Your task to perform on an android device: open app "Google Docs" (install if not already installed) Image 0: 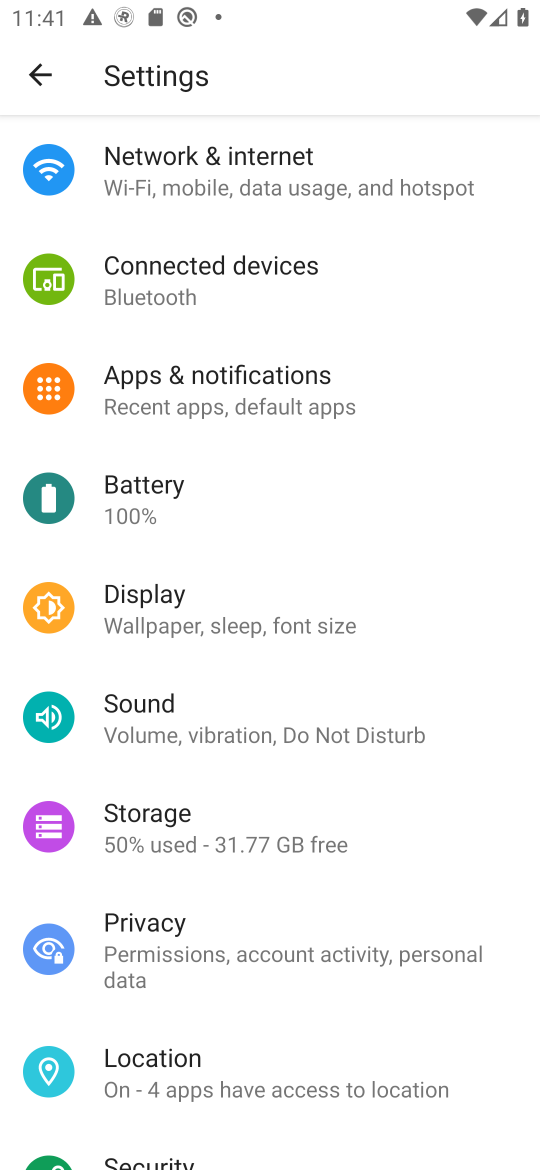
Step 0: press home button
Your task to perform on an android device: open app "Google Docs" (install if not already installed) Image 1: 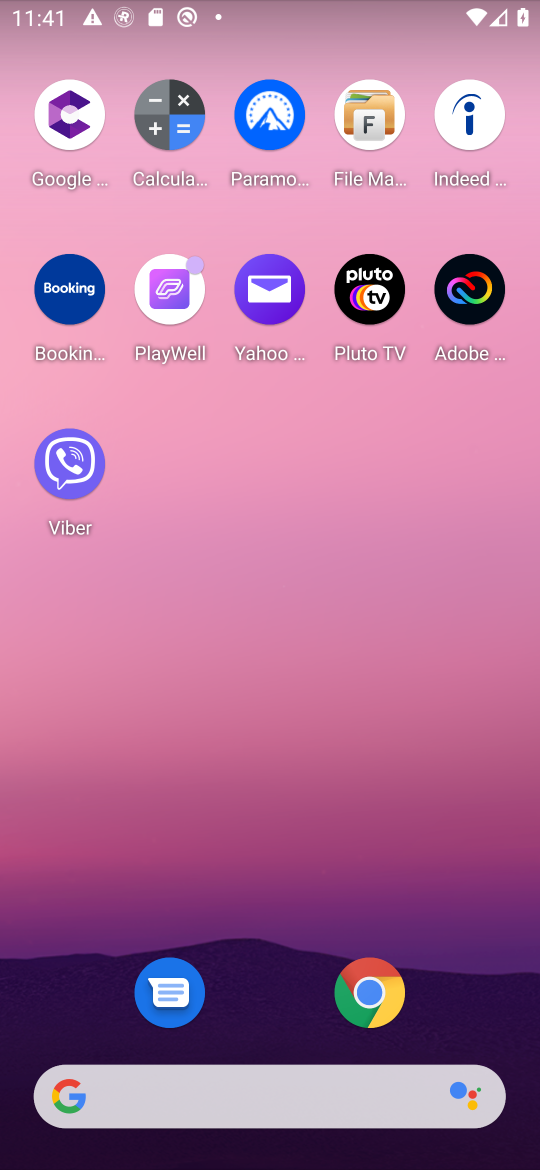
Step 1: drag from (251, 1099) to (232, 399)
Your task to perform on an android device: open app "Google Docs" (install if not already installed) Image 2: 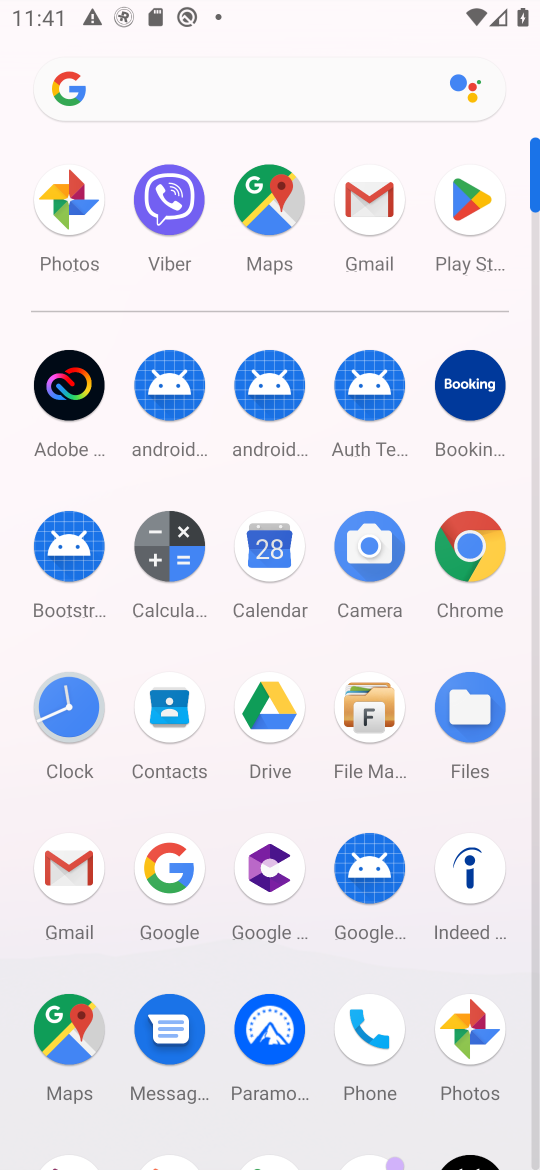
Step 2: click (468, 207)
Your task to perform on an android device: open app "Google Docs" (install if not already installed) Image 3: 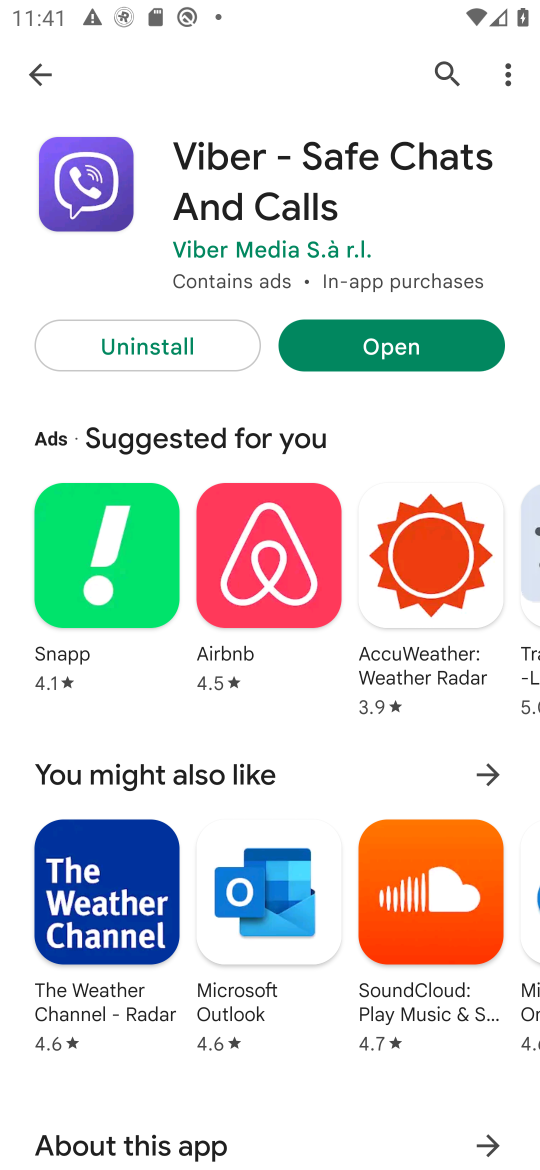
Step 3: click (447, 70)
Your task to perform on an android device: open app "Google Docs" (install if not already installed) Image 4: 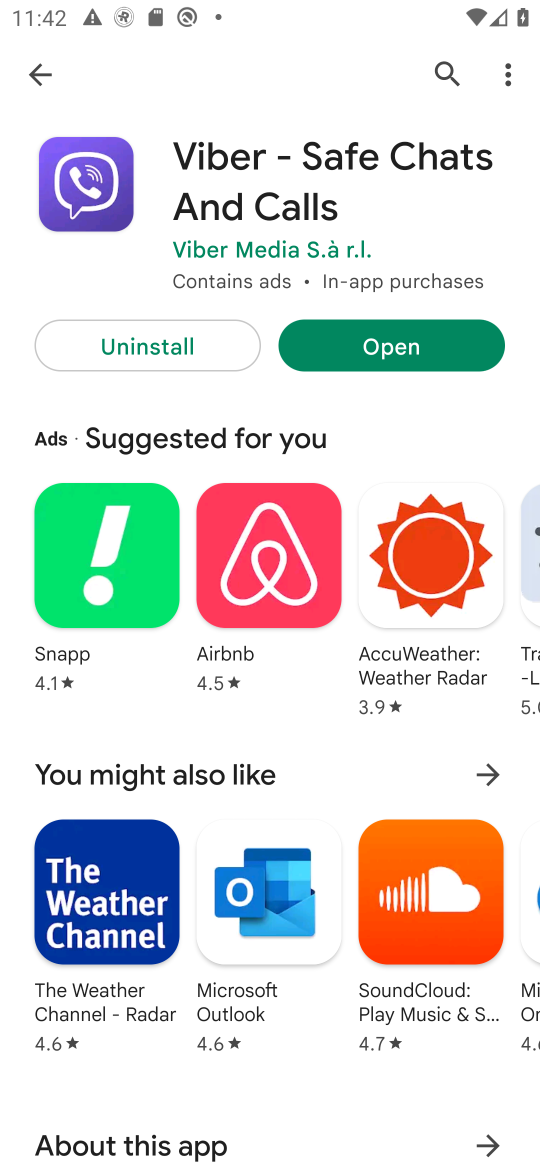
Step 4: click (442, 71)
Your task to perform on an android device: open app "Google Docs" (install if not already installed) Image 5: 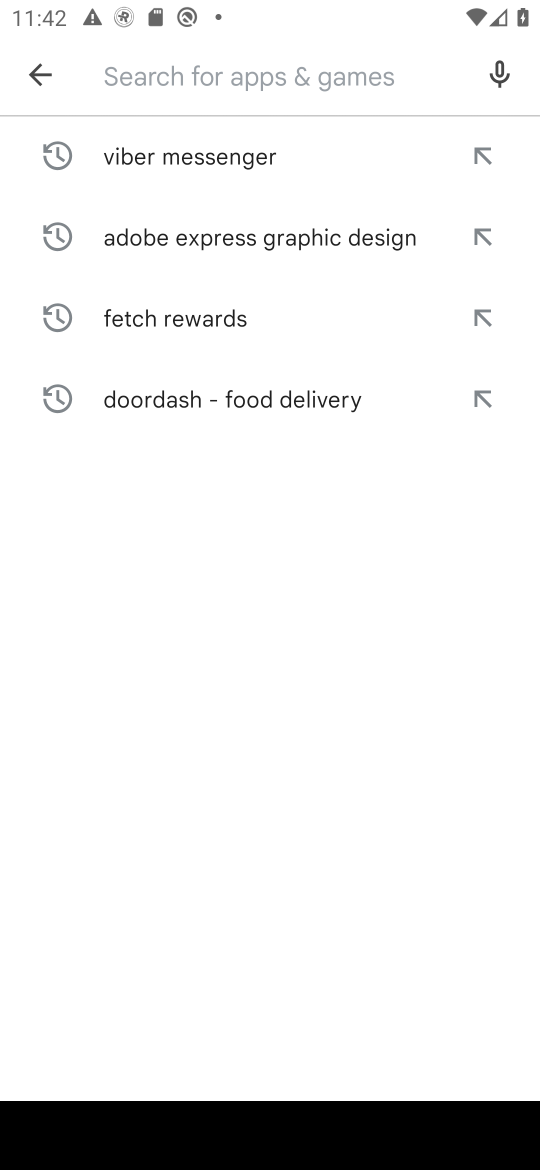
Step 5: type "Google Docs"
Your task to perform on an android device: open app "Google Docs" (install if not already installed) Image 6: 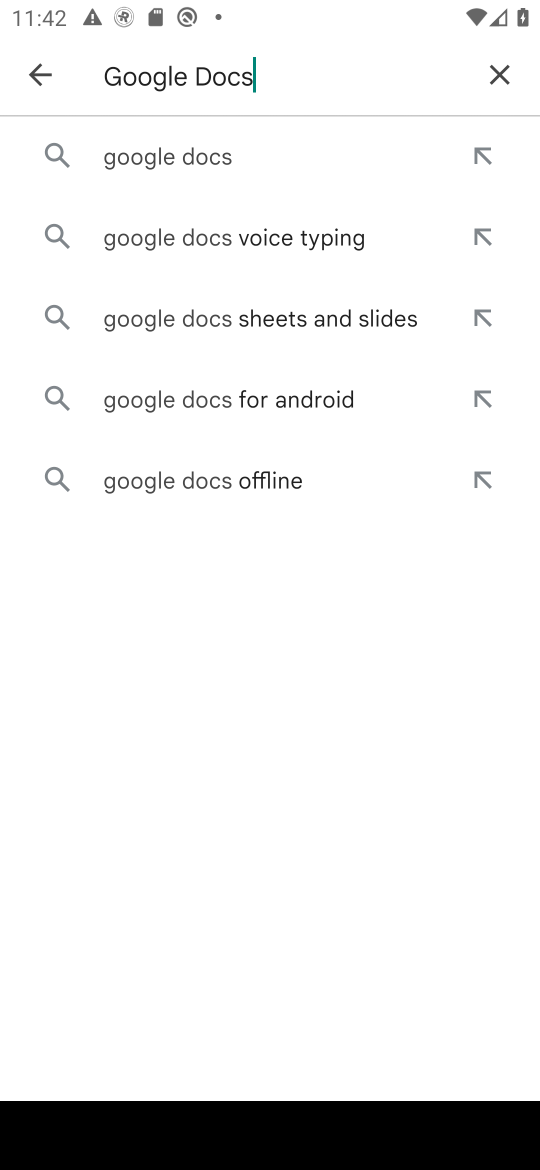
Step 6: click (149, 160)
Your task to perform on an android device: open app "Google Docs" (install if not already installed) Image 7: 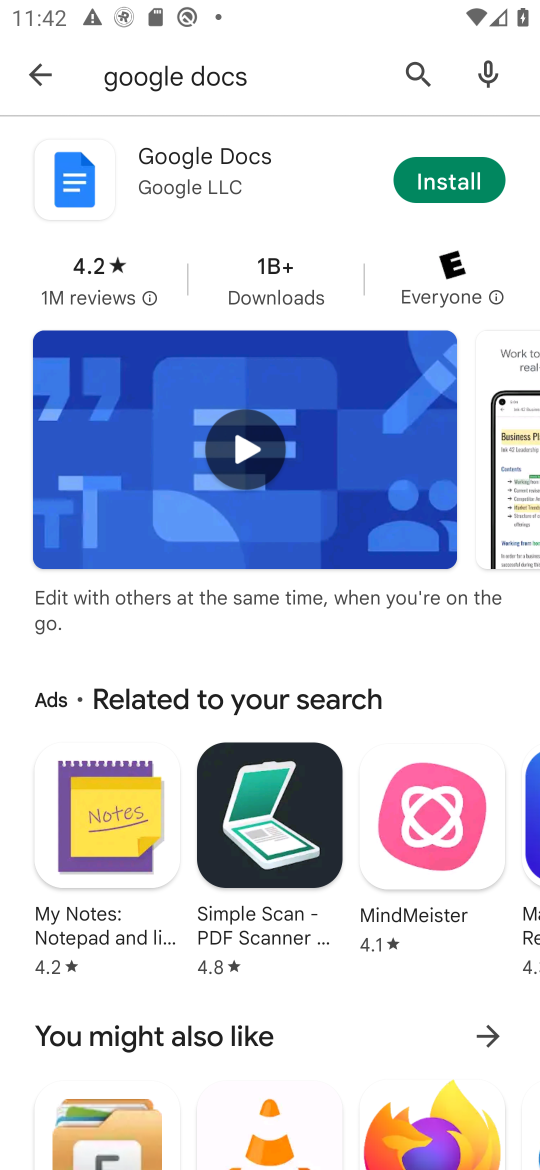
Step 7: click (438, 179)
Your task to perform on an android device: open app "Google Docs" (install if not already installed) Image 8: 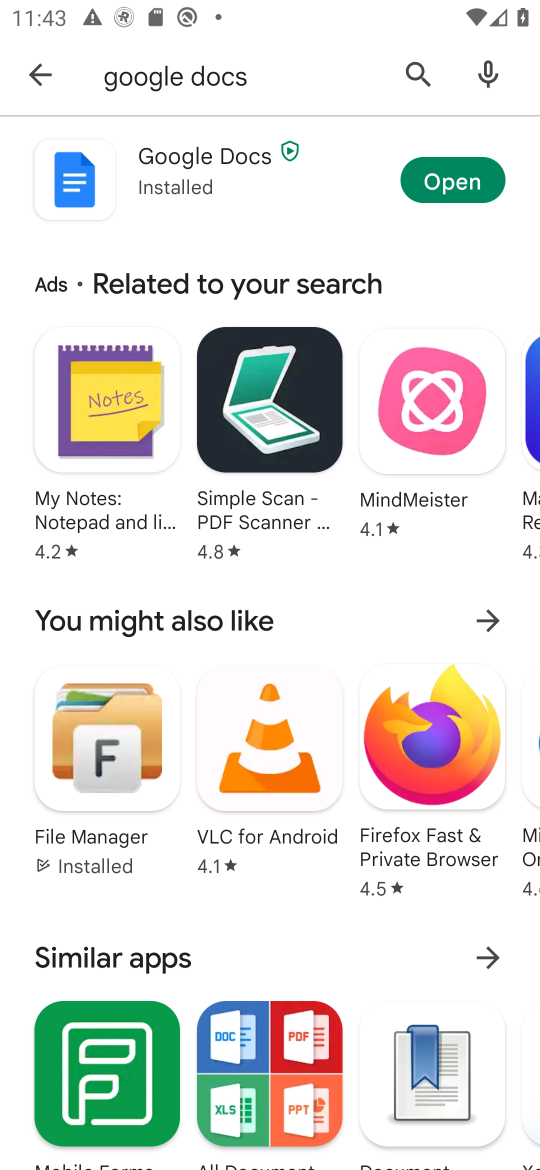
Step 8: click (438, 179)
Your task to perform on an android device: open app "Google Docs" (install if not already installed) Image 9: 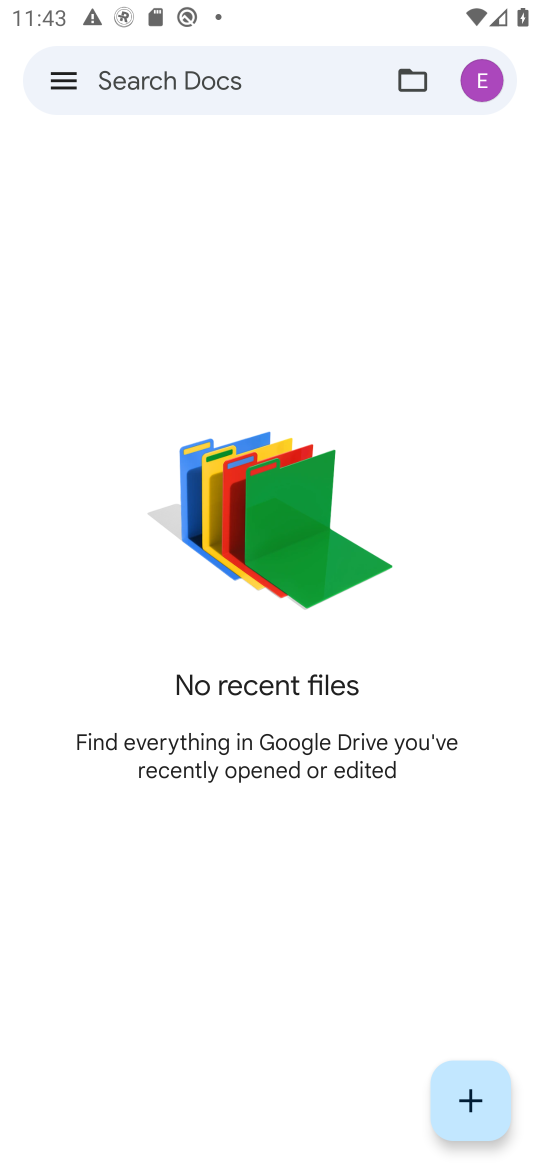
Step 9: task complete